Your task to perform on an android device: change notification settings in the gmail app Image 0: 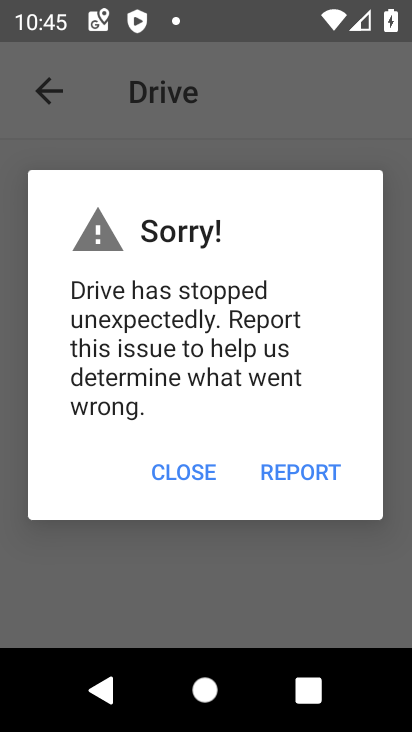
Step 0: press home button
Your task to perform on an android device: change notification settings in the gmail app Image 1: 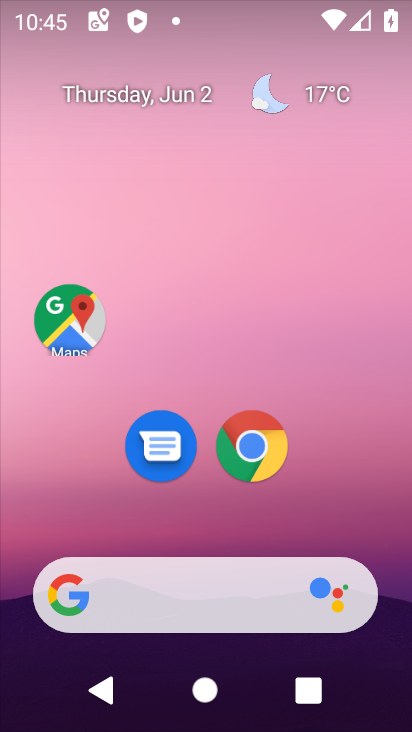
Step 1: drag from (316, 473) to (324, 121)
Your task to perform on an android device: change notification settings in the gmail app Image 2: 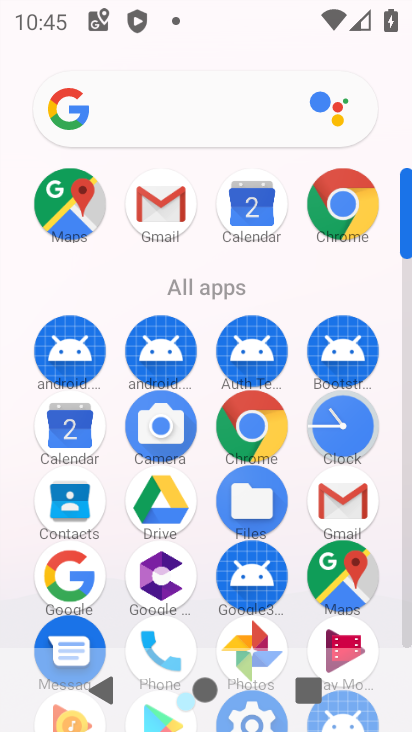
Step 2: click (146, 200)
Your task to perform on an android device: change notification settings in the gmail app Image 3: 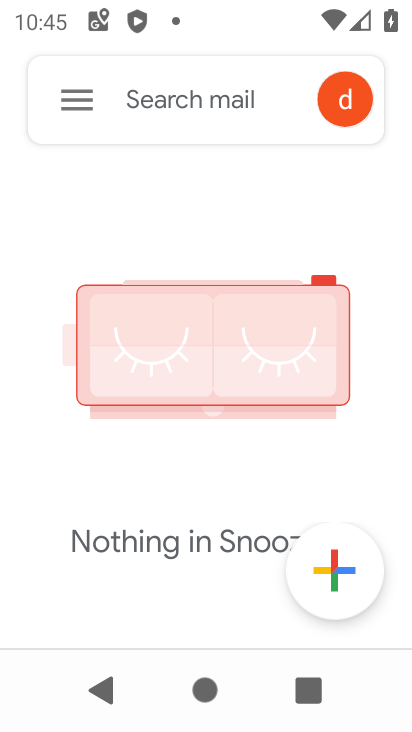
Step 3: click (63, 91)
Your task to perform on an android device: change notification settings in the gmail app Image 4: 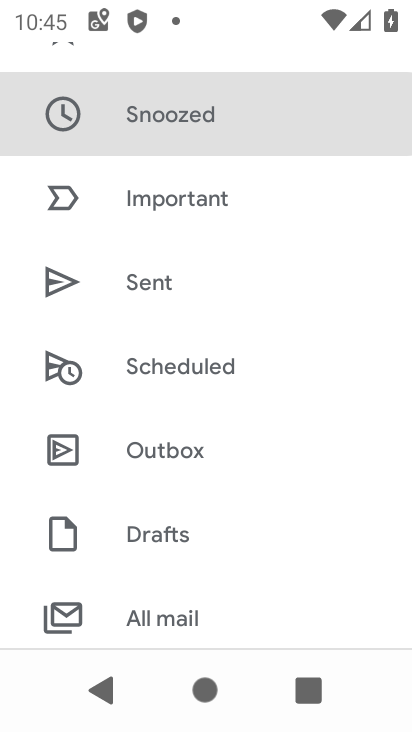
Step 4: drag from (226, 578) to (320, 152)
Your task to perform on an android device: change notification settings in the gmail app Image 5: 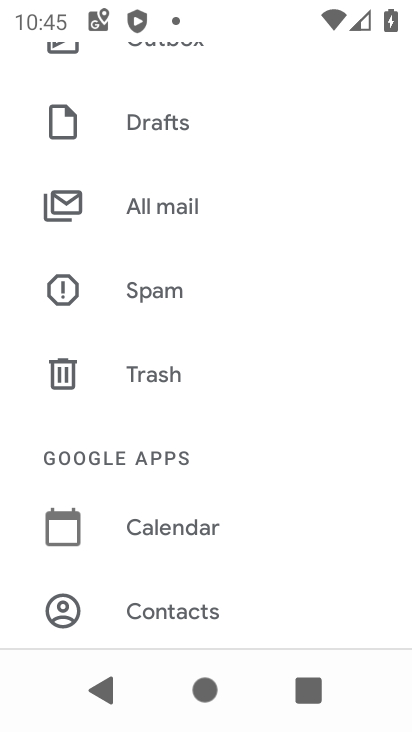
Step 5: drag from (191, 503) to (325, 151)
Your task to perform on an android device: change notification settings in the gmail app Image 6: 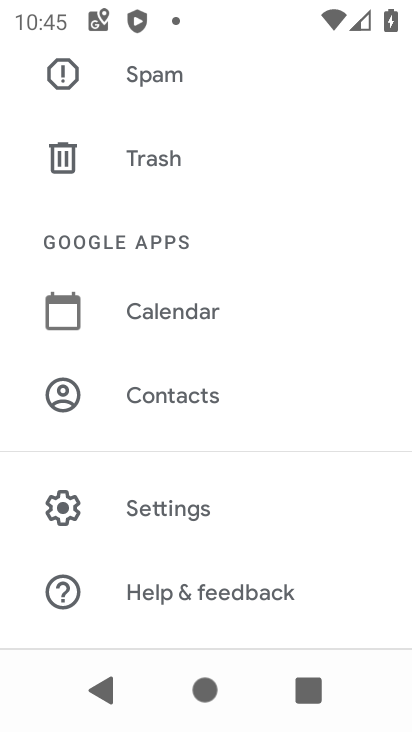
Step 6: click (149, 527)
Your task to perform on an android device: change notification settings in the gmail app Image 7: 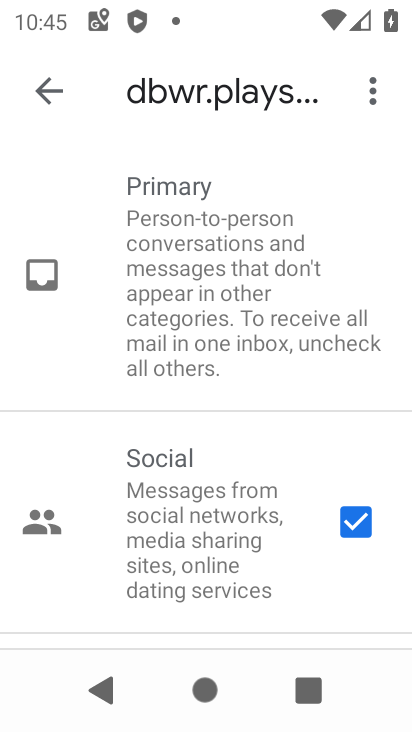
Step 7: click (46, 89)
Your task to perform on an android device: change notification settings in the gmail app Image 8: 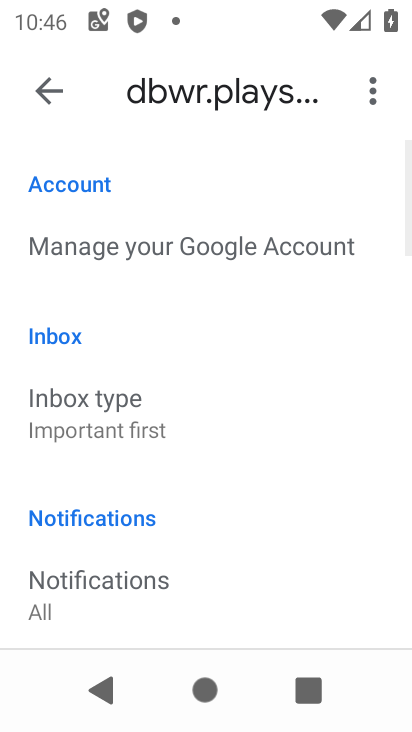
Step 8: drag from (225, 469) to (296, 185)
Your task to perform on an android device: change notification settings in the gmail app Image 9: 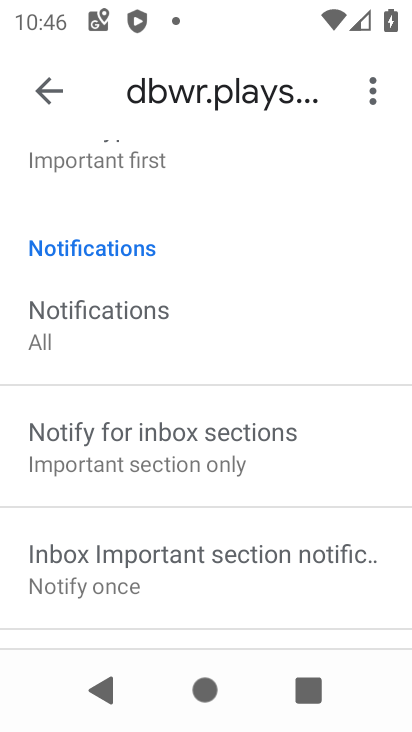
Step 9: drag from (153, 593) to (294, 260)
Your task to perform on an android device: change notification settings in the gmail app Image 10: 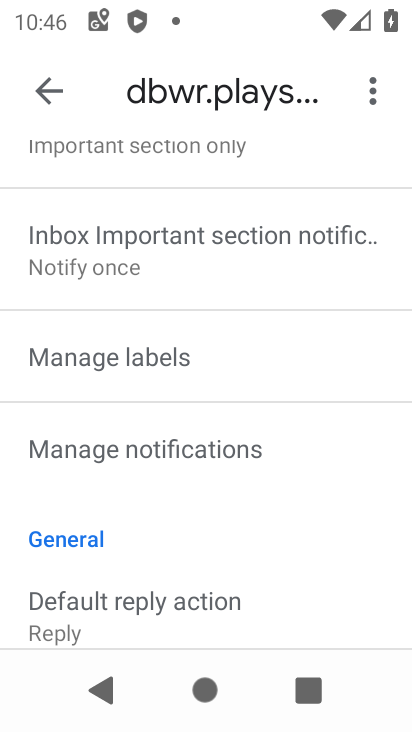
Step 10: click (222, 451)
Your task to perform on an android device: change notification settings in the gmail app Image 11: 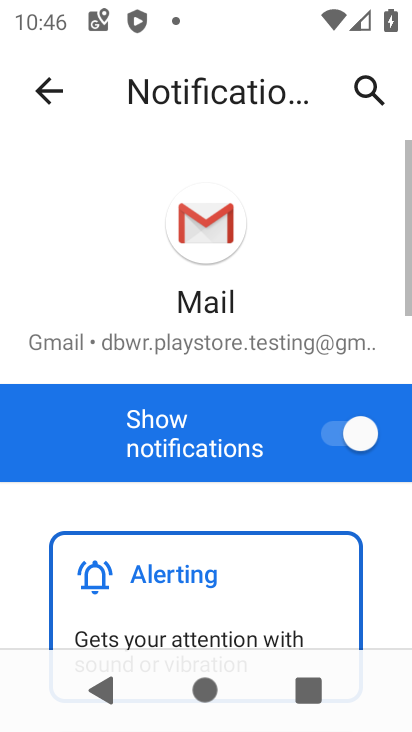
Step 11: drag from (208, 561) to (215, 167)
Your task to perform on an android device: change notification settings in the gmail app Image 12: 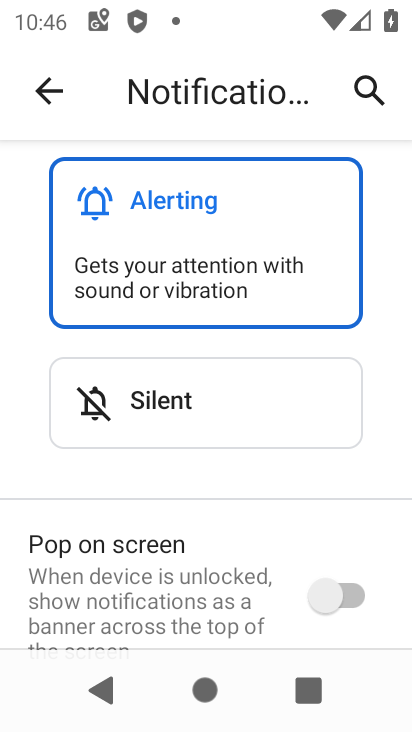
Step 12: drag from (201, 187) to (227, 604)
Your task to perform on an android device: change notification settings in the gmail app Image 13: 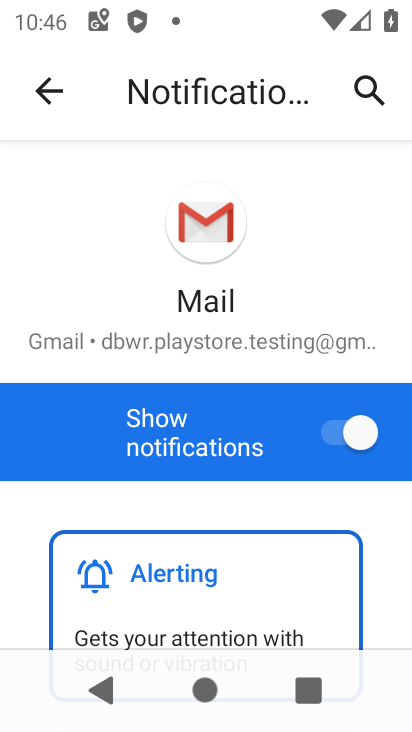
Step 13: click (363, 441)
Your task to perform on an android device: change notification settings in the gmail app Image 14: 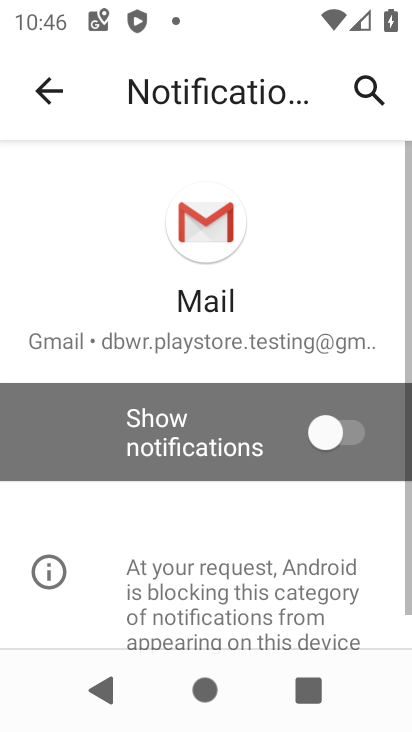
Step 14: task complete